Your task to perform on an android device: toggle show notifications on the lock screen Image 0: 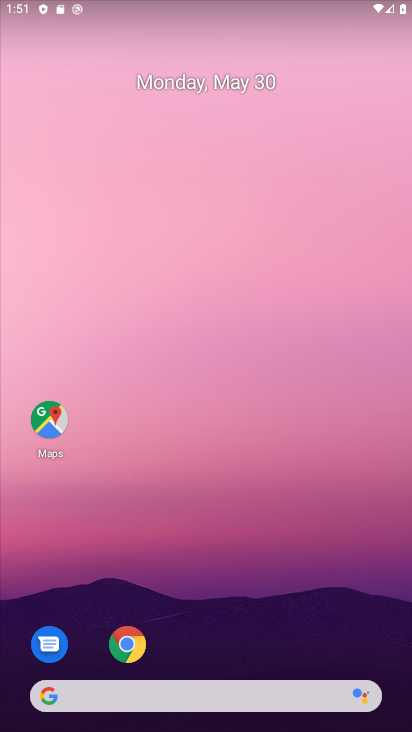
Step 0: press home button
Your task to perform on an android device: toggle show notifications on the lock screen Image 1: 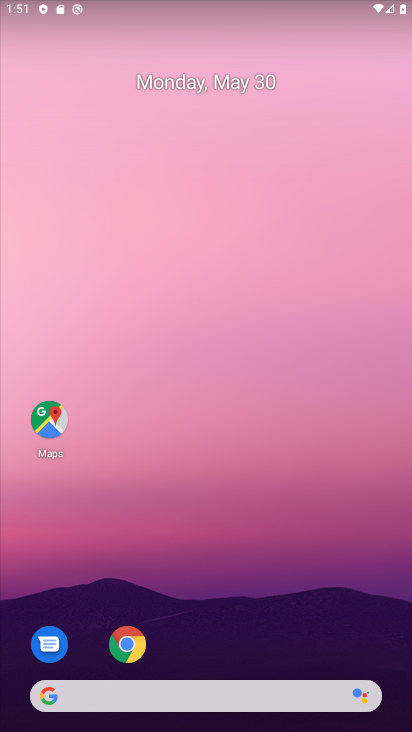
Step 1: drag from (324, 513) to (343, 197)
Your task to perform on an android device: toggle show notifications on the lock screen Image 2: 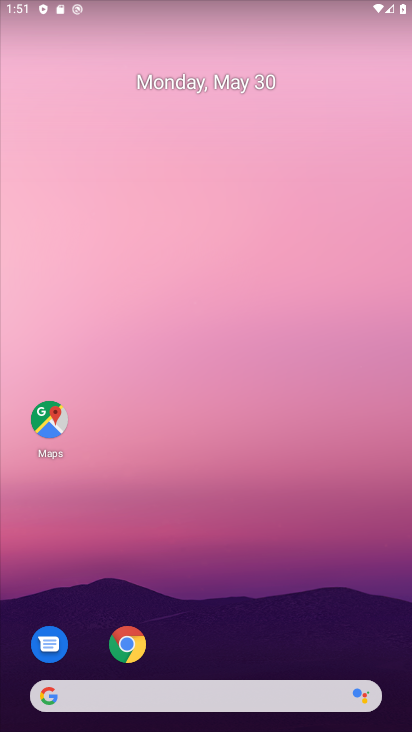
Step 2: drag from (313, 552) to (359, 47)
Your task to perform on an android device: toggle show notifications on the lock screen Image 3: 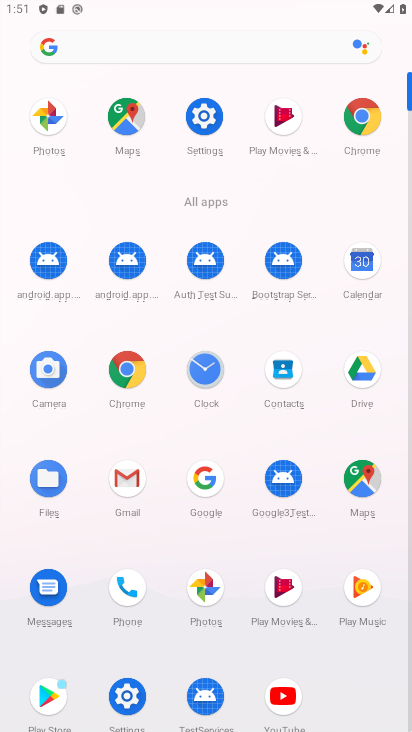
Step 3: click (214, 115)
Your task to perform on an android device: toggle show notifications on the lock screen Image 4: 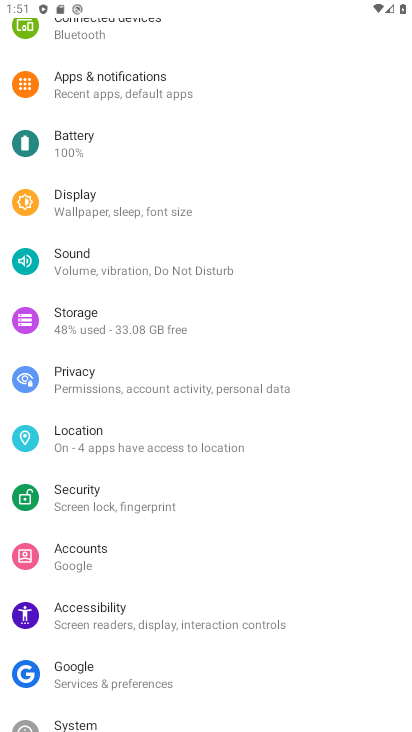
Step 4: click (186, 76)
Your task to perform on an android device: toggle show notifications on the lock screen Image 5: 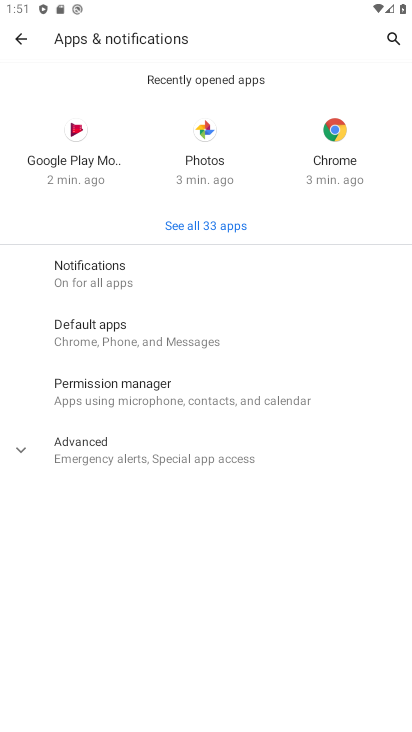
Step 5: click (104, 274)
Your task to perform on an android device: toggle show notifications on the lock screen Image 6: 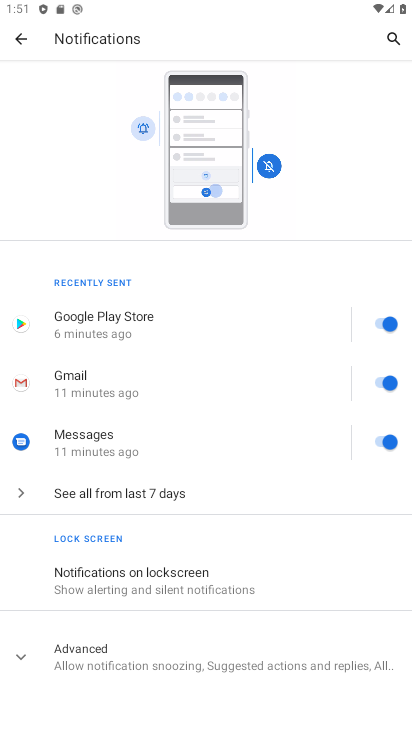
Step 6: click (89, 578)
Your task to perform on an android device: toggle show notifications on the lock screen Image 7: 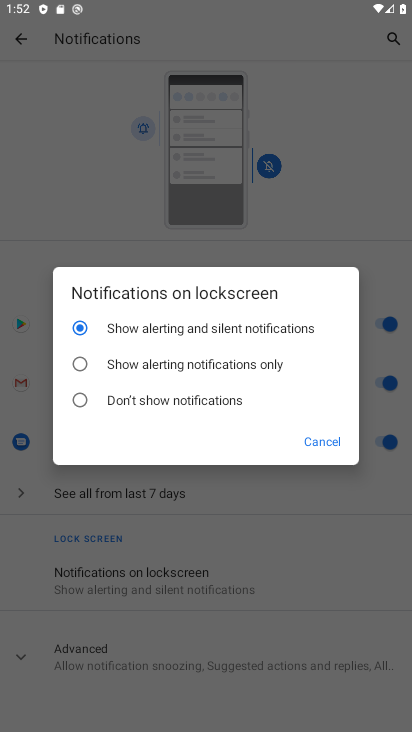
Step 7: click (228, 365)
Your task to perform on an android device: toggle show notifications on the lock screen Image 8: 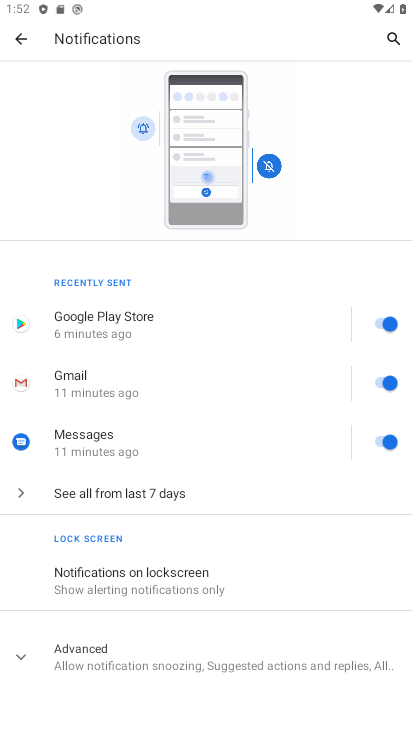
Step 8: task complete